Your task to perform on an android device: Go to Google maps Image 0: 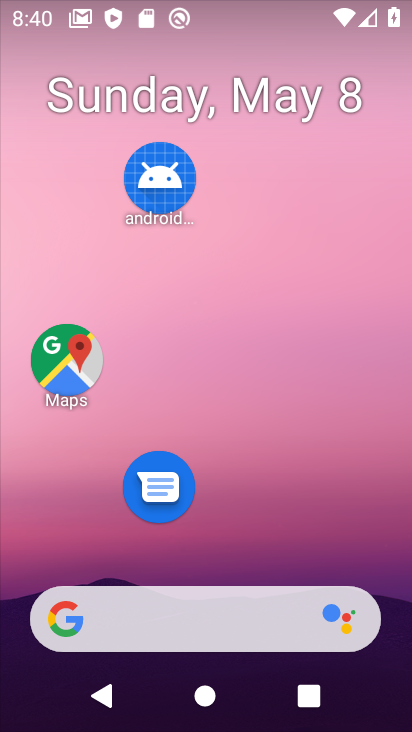
Step 0: click (42, 353)
Your task to perform on an android device: Go to Google maps Image 1: 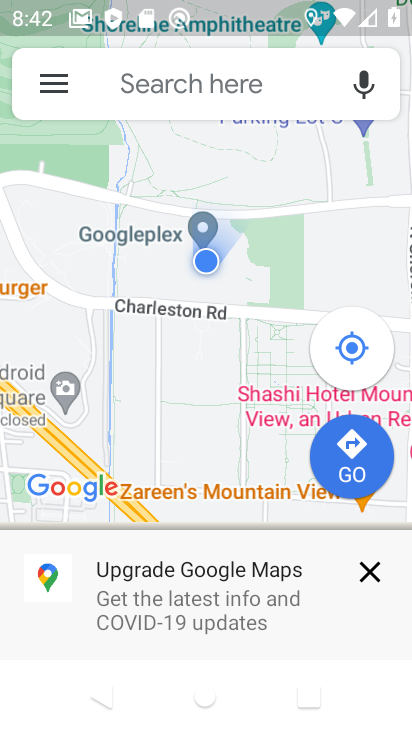
Step 1: task complete